Your task to perform on an android device: change the clock display to digital Image 0: 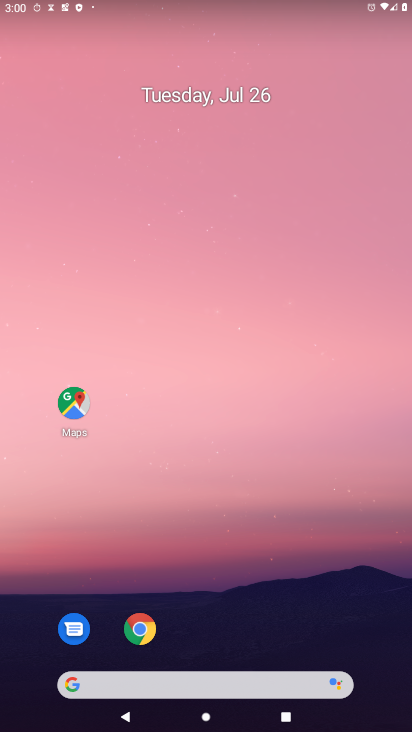
Step 0: drag from (280, 648) to (319, 0)
Your task to perform on an android device: change the clock display to digital Image 1: 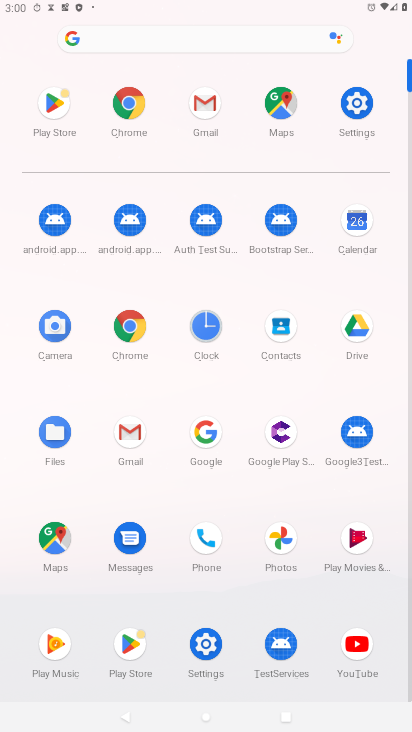
Step 1: click (204, 320)
Your task to perform on an android device: change the clock display to digital Image 2: 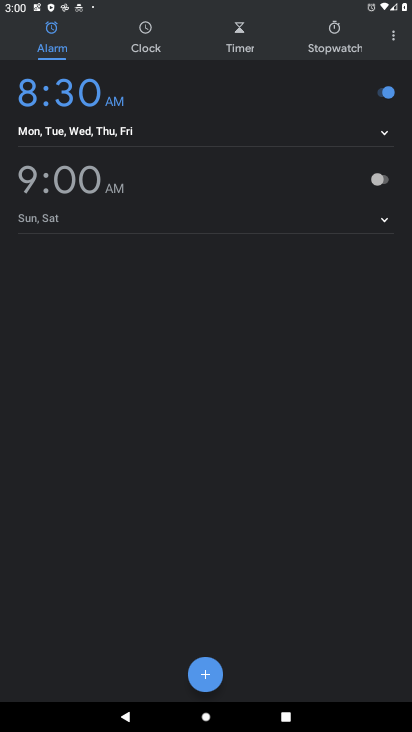
Step 2: click (390, 34)
Your task to perform on an android device: change the clock display to digital Image 3: 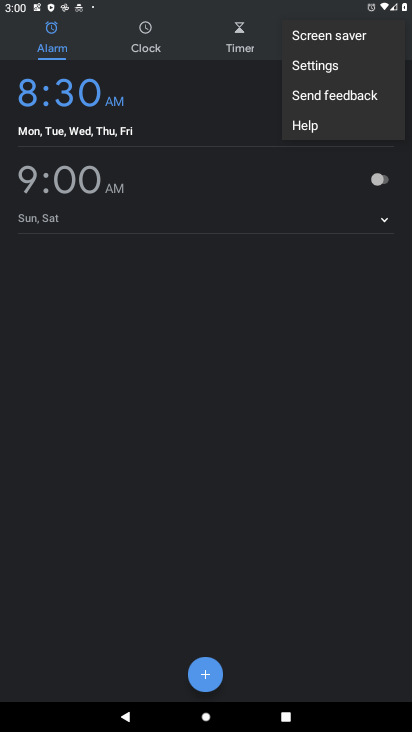
Step 3: click (330, 73)
Your task to perform on an android device: change the clock display to digital Image 4: 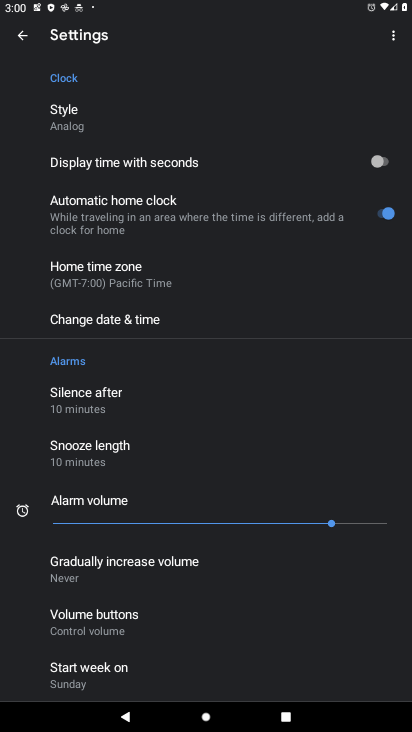
Step 4: click (93, 112)
Your task to perform on an android device: change the clock display to digital Image 5: 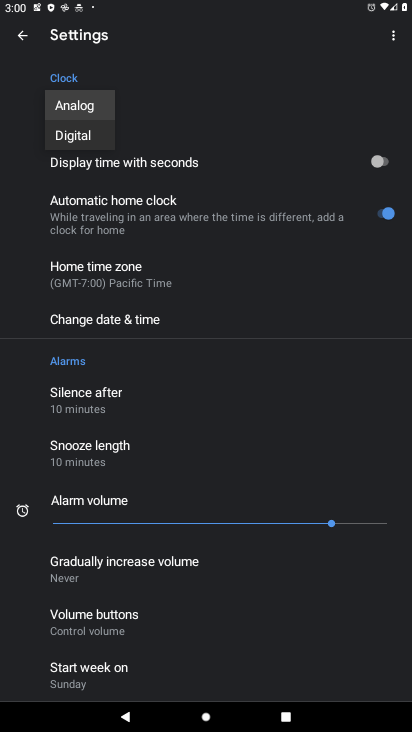
Step 5: click (91, 127)
Your task to perform on an android device: change the clock display to digital Image 6: 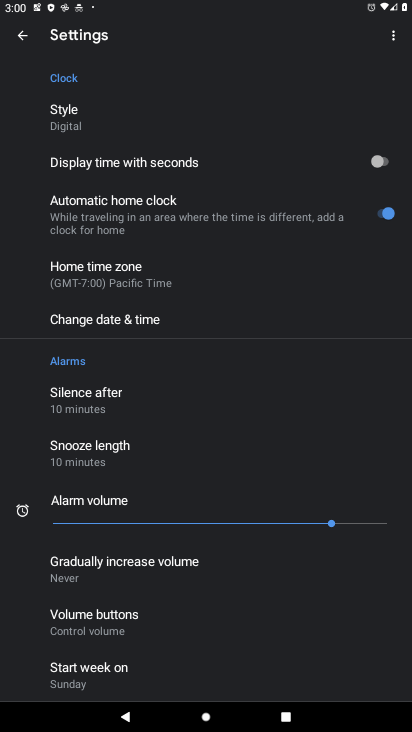
Step 6: task complete